Your task to perform on an android device: Do I have any events today? Image 0: 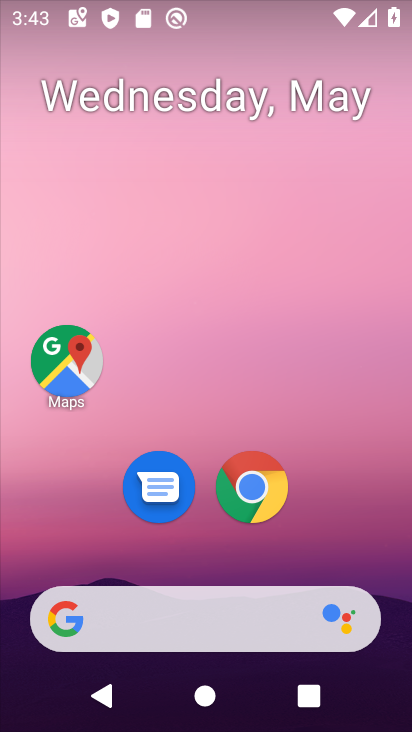
Step 0: drag from (346, 497) to (286, 18)
Your task to perform on an android device: Do I have any events today? Image 1: 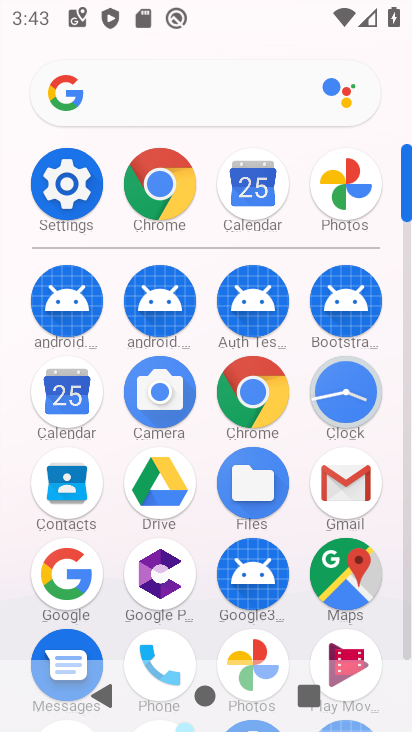
Step 1: drag from (7, 599) to (19, 277)
Your task to perform on an android device: Do I have any events today? Image 2: 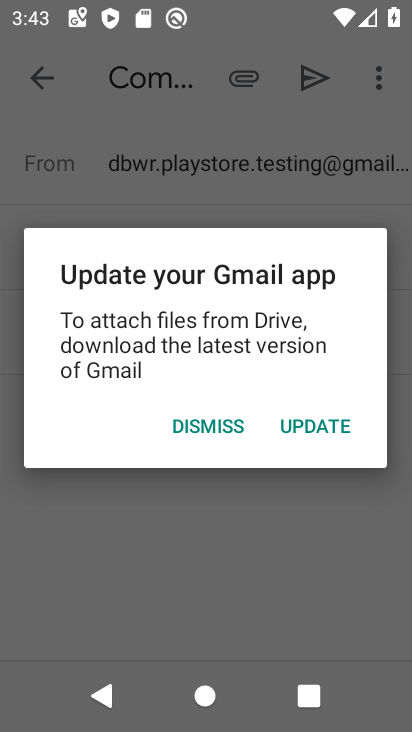
Step 2: press back button
Your task to perform on an android device: Do I have any events today? Image 3: 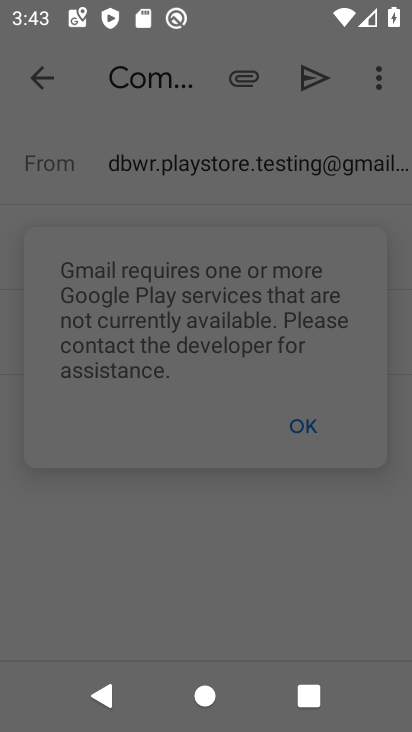
Step 3: press home button
Your task to perform on an android device: Do I have any events today? Image 4: 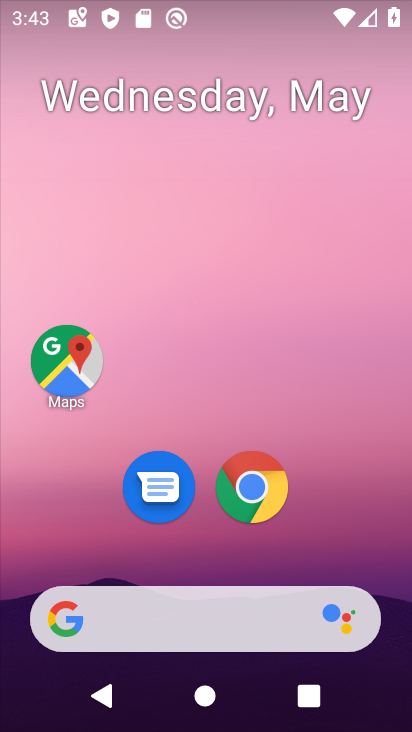
Step 4: drag from (336, 543) to (293, 48)
Your task to perform on an android device: Do I have any events today? Image 5: 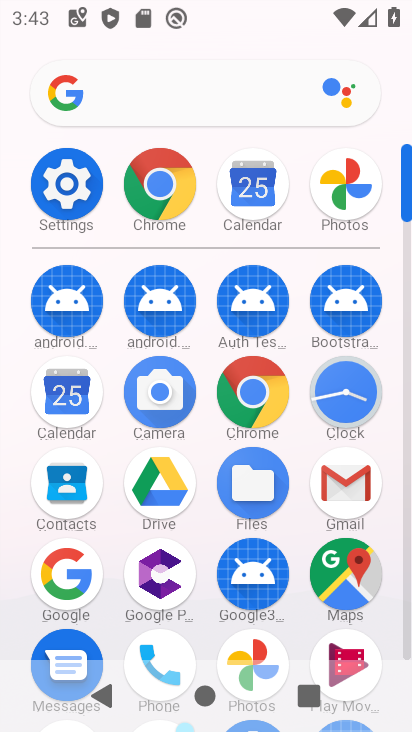
Step 5: click (244, 181)
Your task to perform on an android device: Do I have any events today? Image 6: 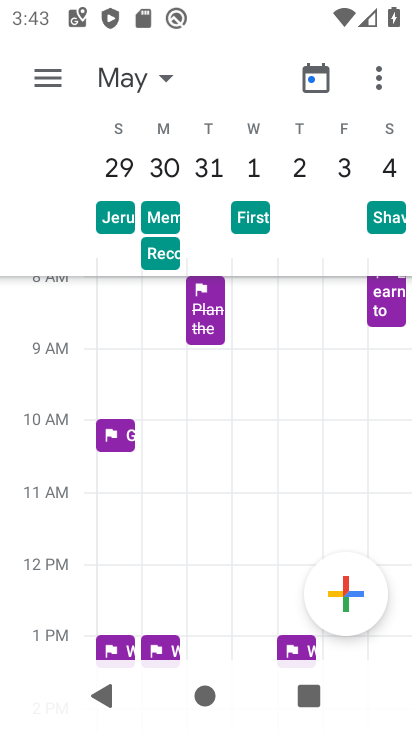
Step 6: click (312, 73)
Your task to perform on an android device: Do I have any events today? Image 7: 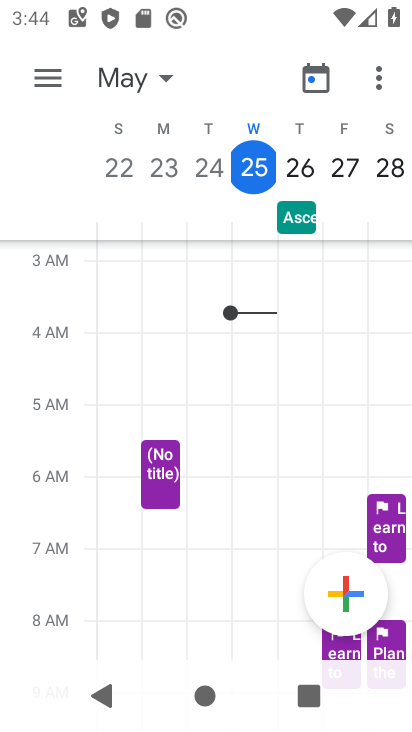
Step 7: click (253, 165)
Your task to perform on an android device: Do I have any events today? Image 8: 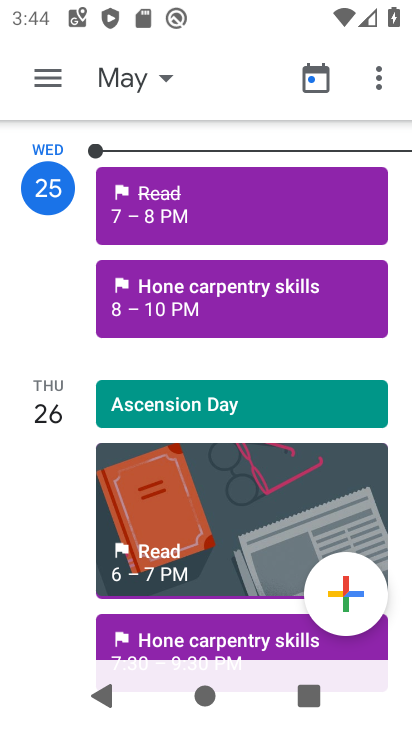
Step 8: task complete